Your task to perform on an android device: open app "eBay: The shopping marketplace" (install if not already installed) Image 0: 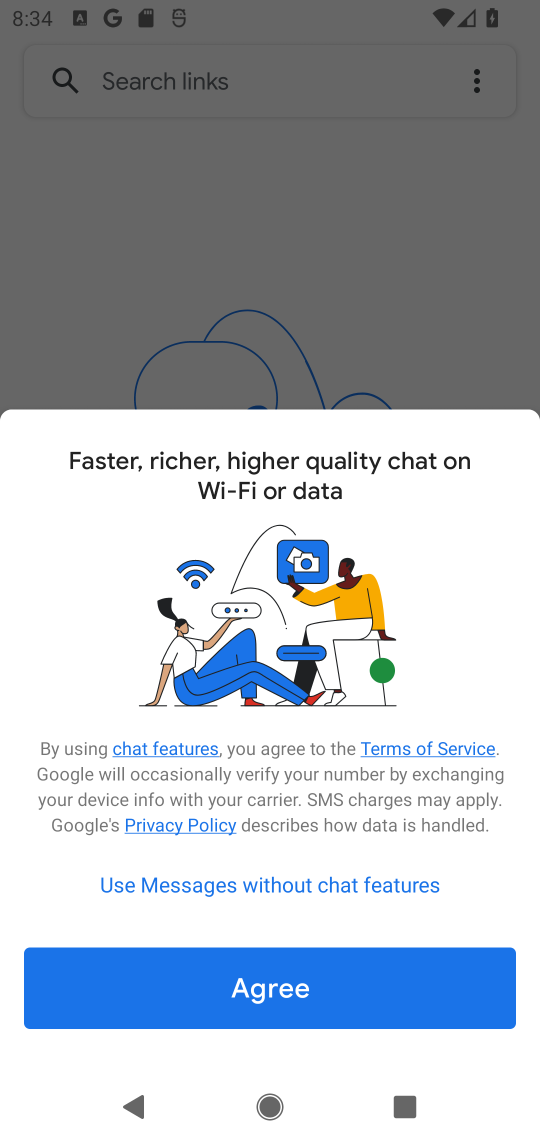
Step 0: press home button
Your task to perform on an android device: open app "eBay: The shopping marketplace" (install if not already installed) Image 1: 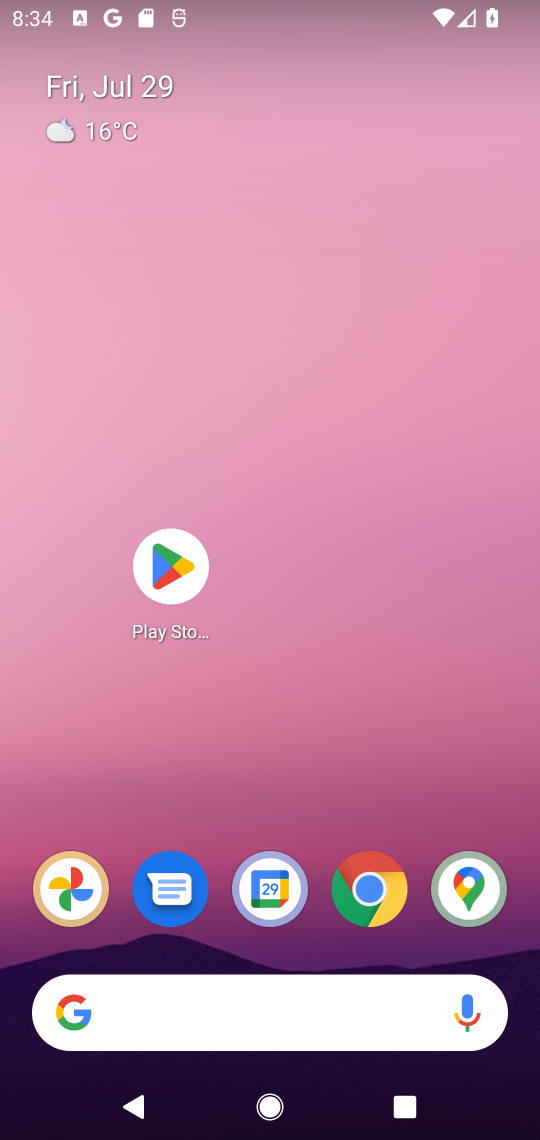
Step 1: click (176, 561)
Your task to perform on an android device: open app "eBay: The shopping marketplace" (install if not already installed) Image 2: 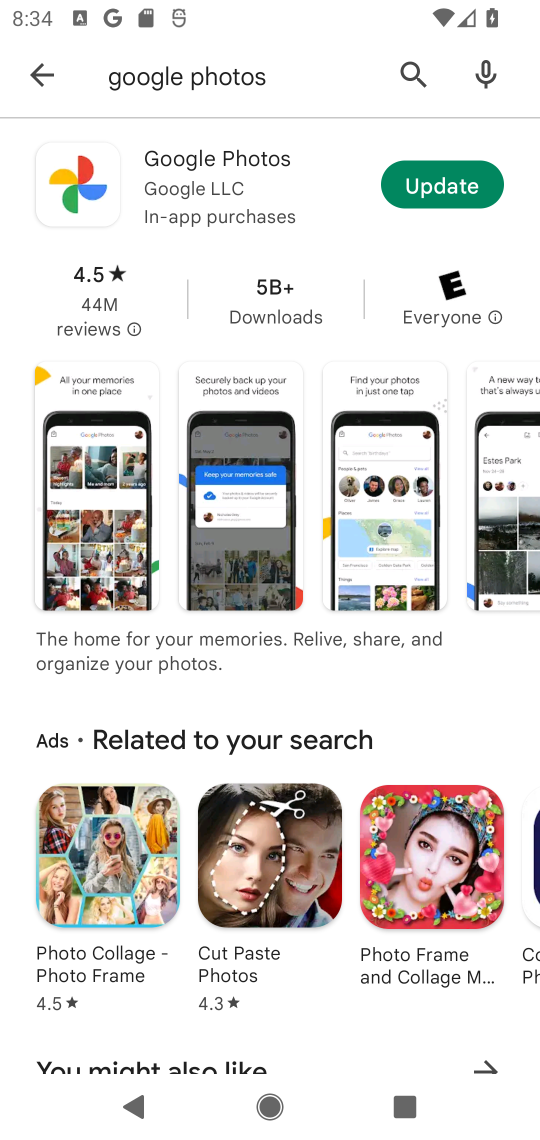
Step 2: click (409, 56)
Your task to perform on an android device: open app "eBay: The shopping marketplace" (install if not already installed) Image 3: 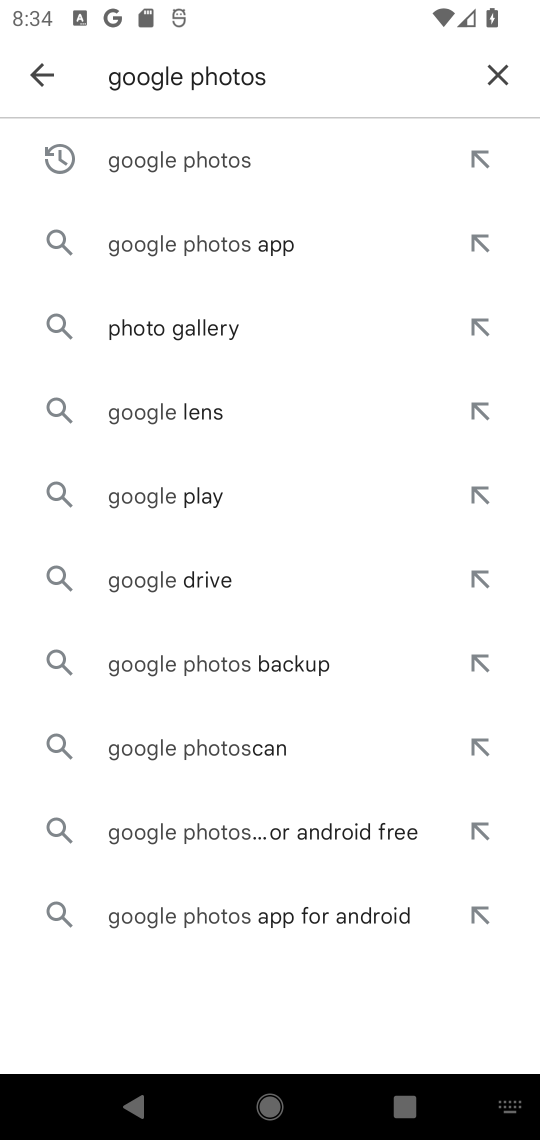
Step 3: click (505, 71)
Your task to perform on an android device: open app "eBay: The shopping marketplace" (install if not already installed) Image 4: 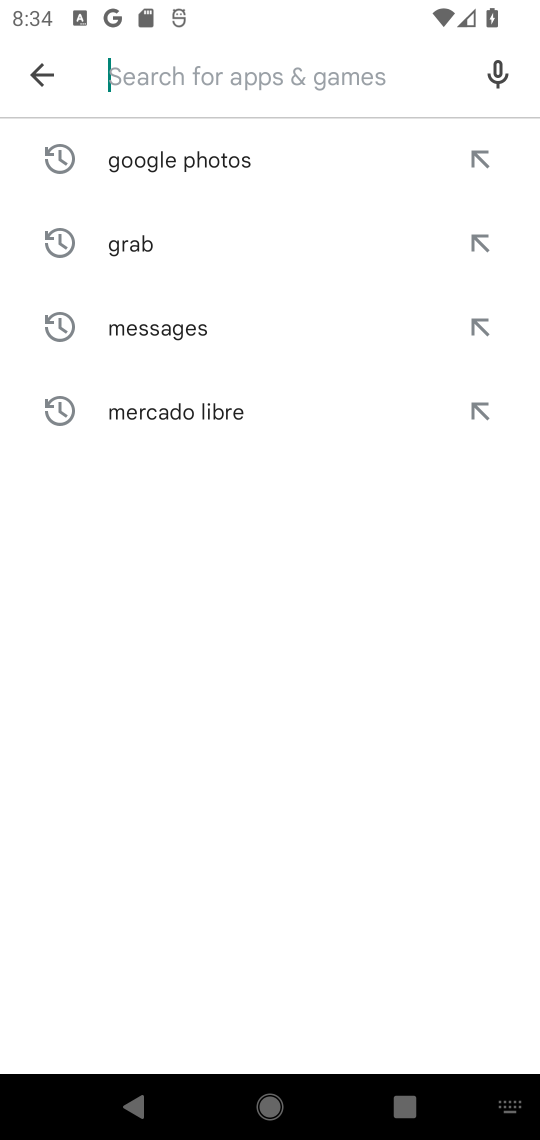
Step 4: type "eBay: The shopping marketplace"
Your task to perform on an android device: open app "eBay: The shopping marketplace" (install if not already installed) Image 5: 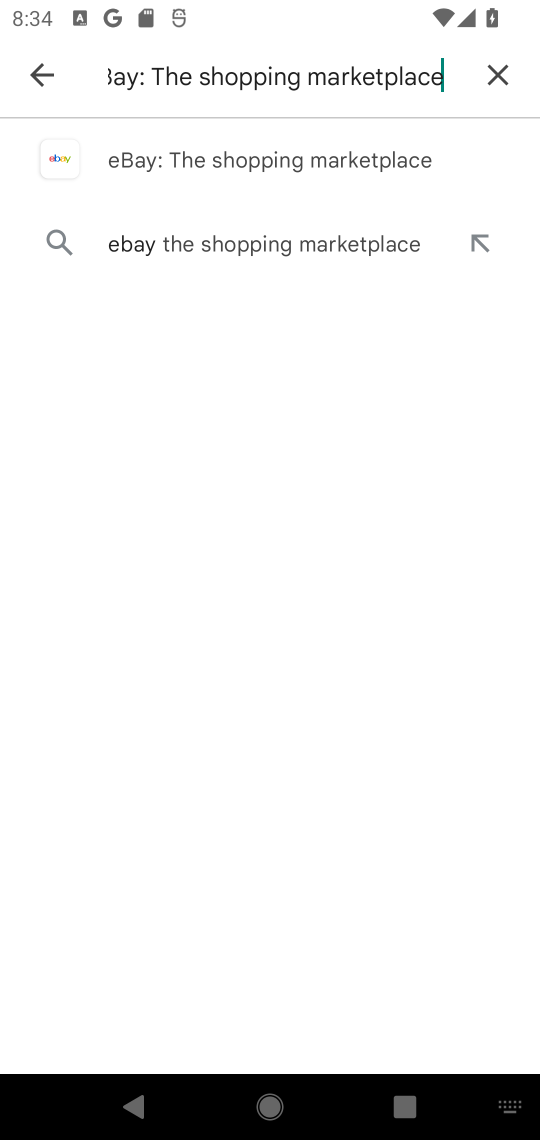
Step 5: click (327, 152)
Your task to perform on an android device: open app "eBay: The shopping marketplace" (install if not already installed) Image 6: 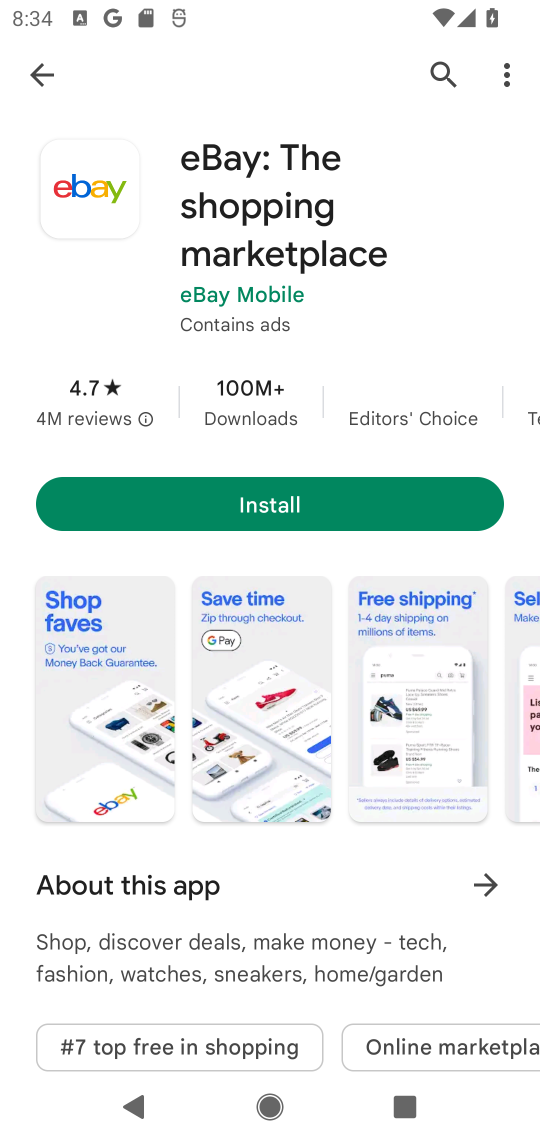
Step 6: click (263, 507)
Your task to perform on an android device: open app "eBay: The shopping marketplace" (install if not already installed) Image 7: 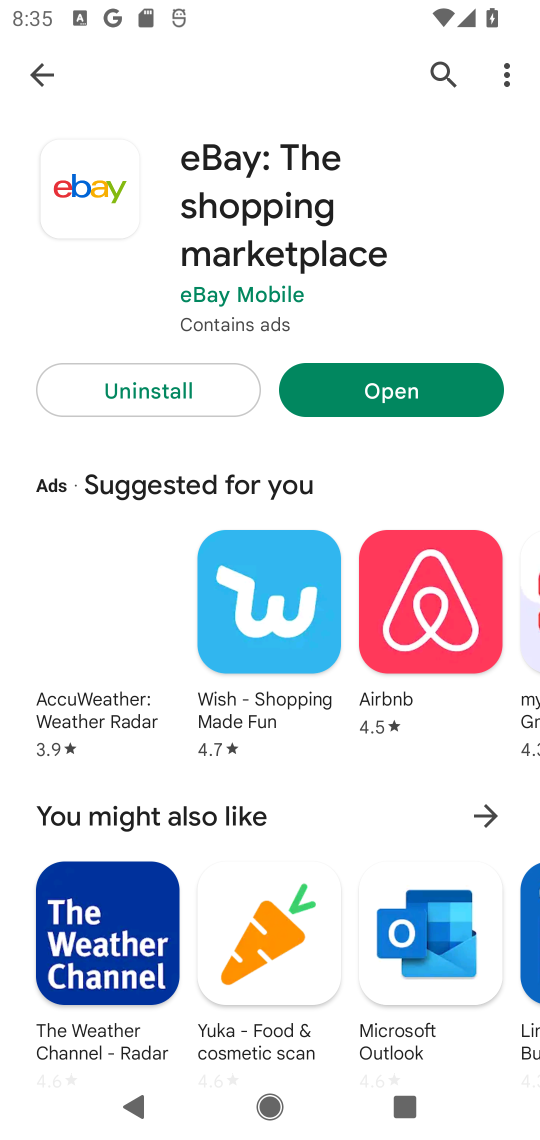
Step 7: click (402, 377)
Your task to perform on an android device: open app "eBay: The shopping marketplace" (install if not already installed) Image 8: 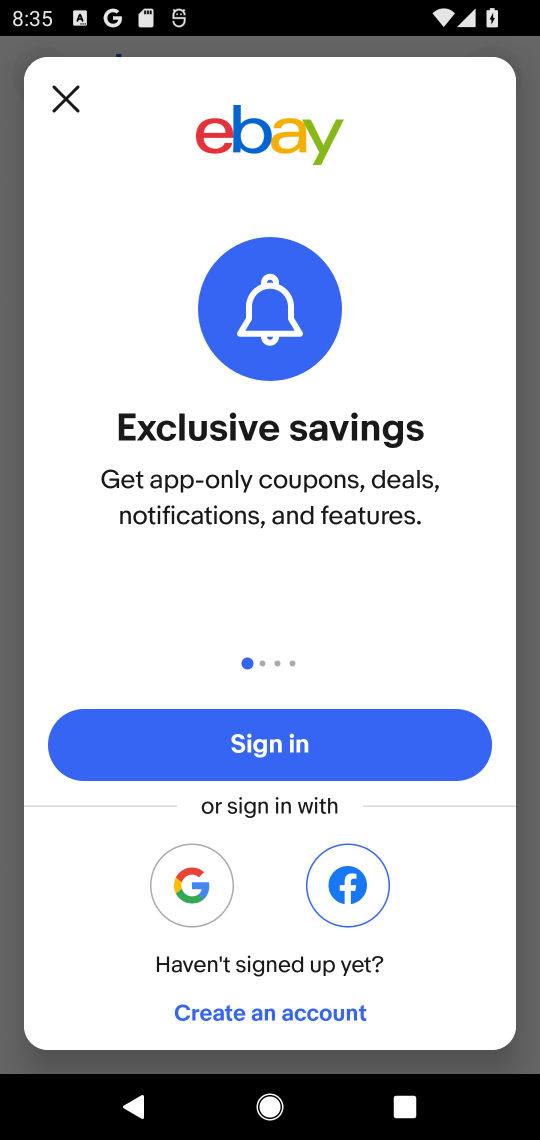
Step 8: task complete